Your task to perform on an android device: Search for hotels in Buenos aires Image 0: 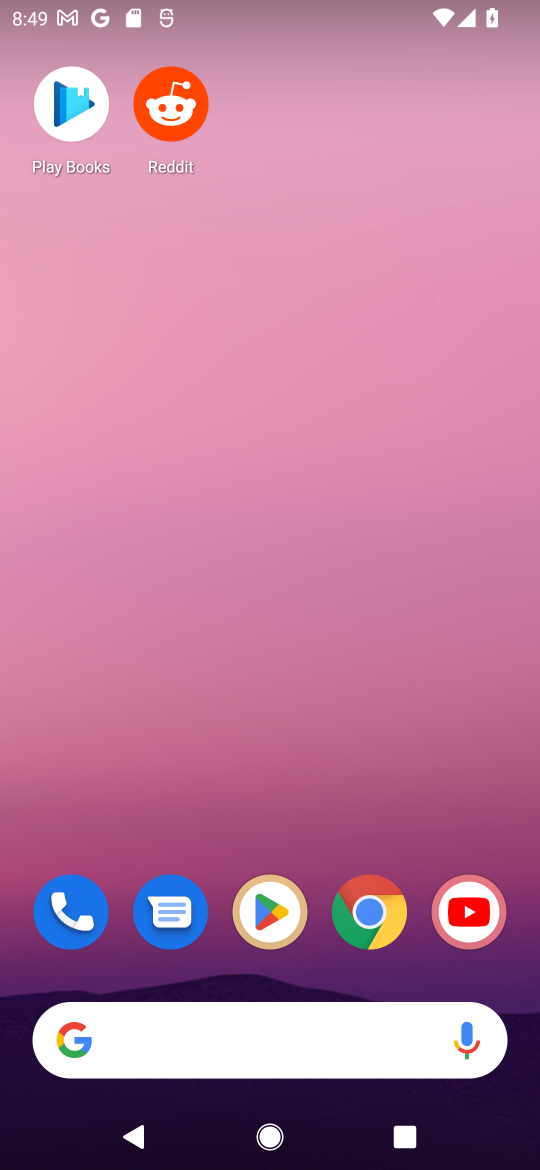
Step 0: click (371, 905)
Your task to perform on an android device: Search for hotels in Buenos aires Image 1: 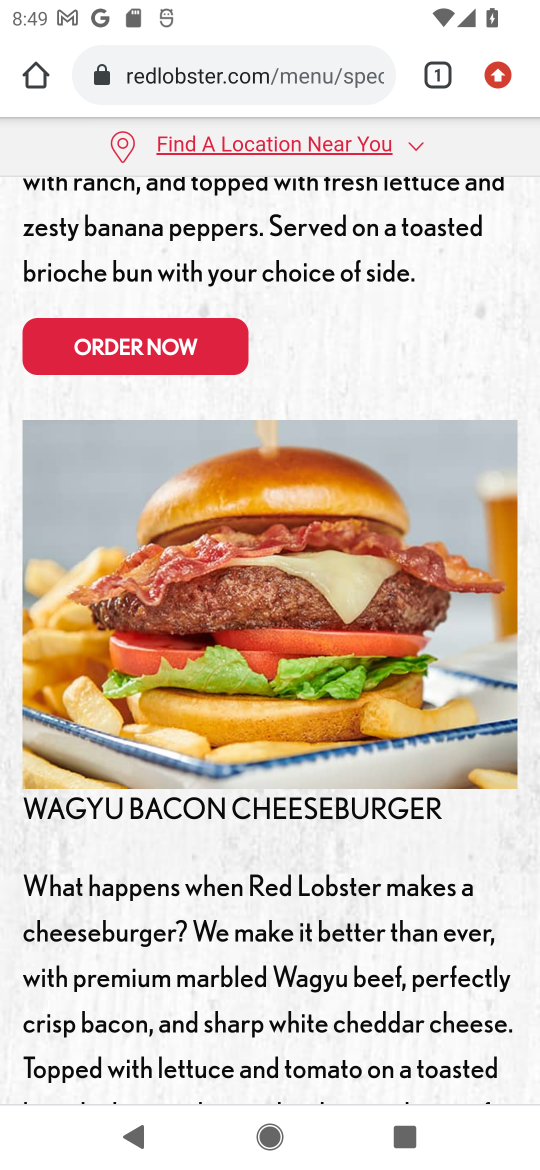
Step 1: click (252, 47)
Your task to perform on an android device: Search for hotels in Buenos aires Image 2: 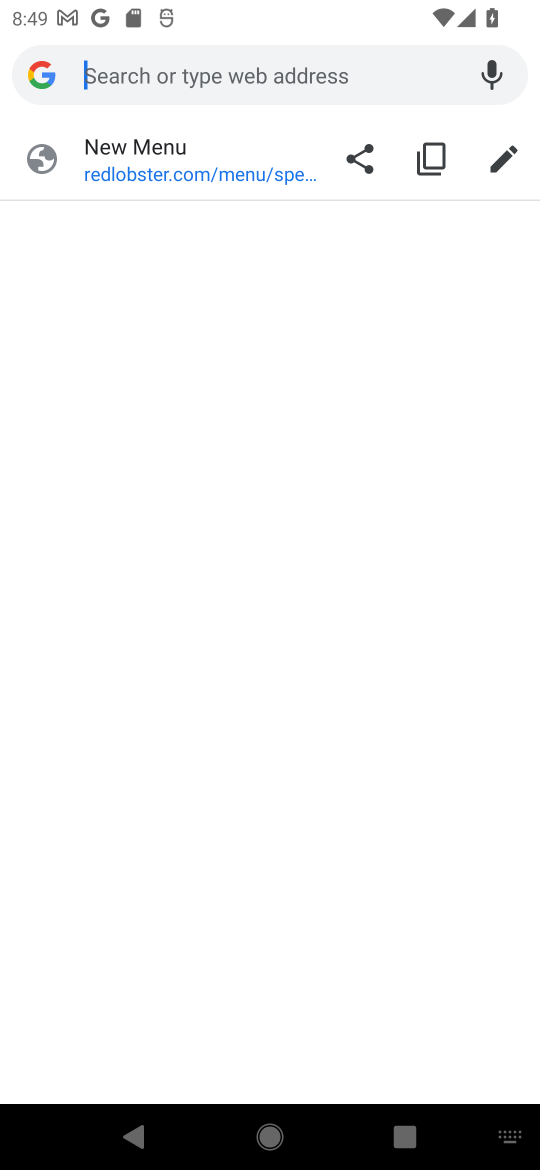
Step 2: type "hotels in buenos aires"
Your task to perform on an android device: Search for hotels in Buenos aires Image 3: 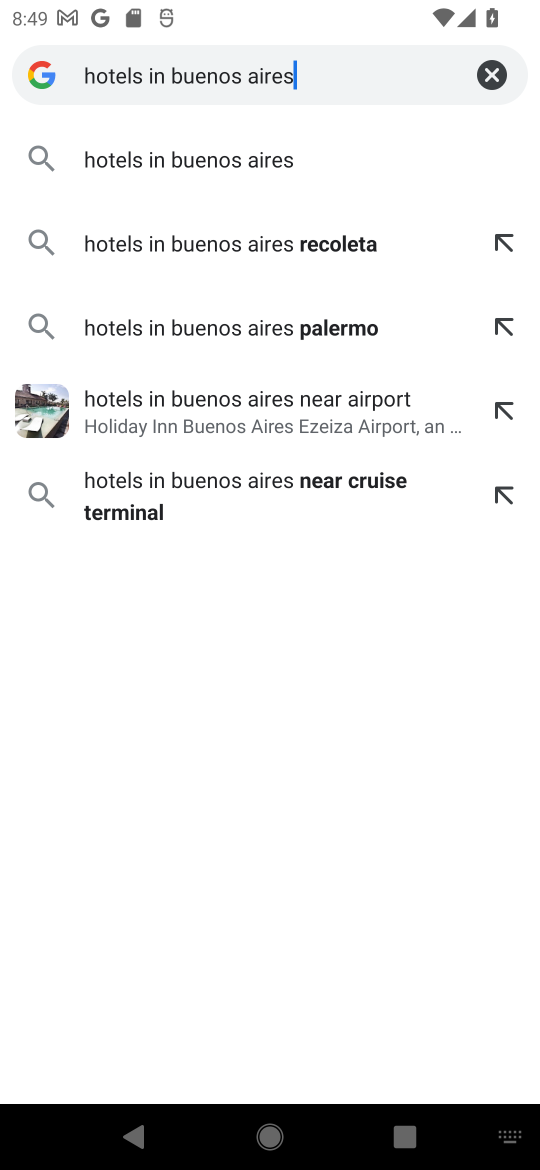
Step 3: click (180, 166)
Your task to perform on an android device: Search for hotels in Buenos aires Image 4: 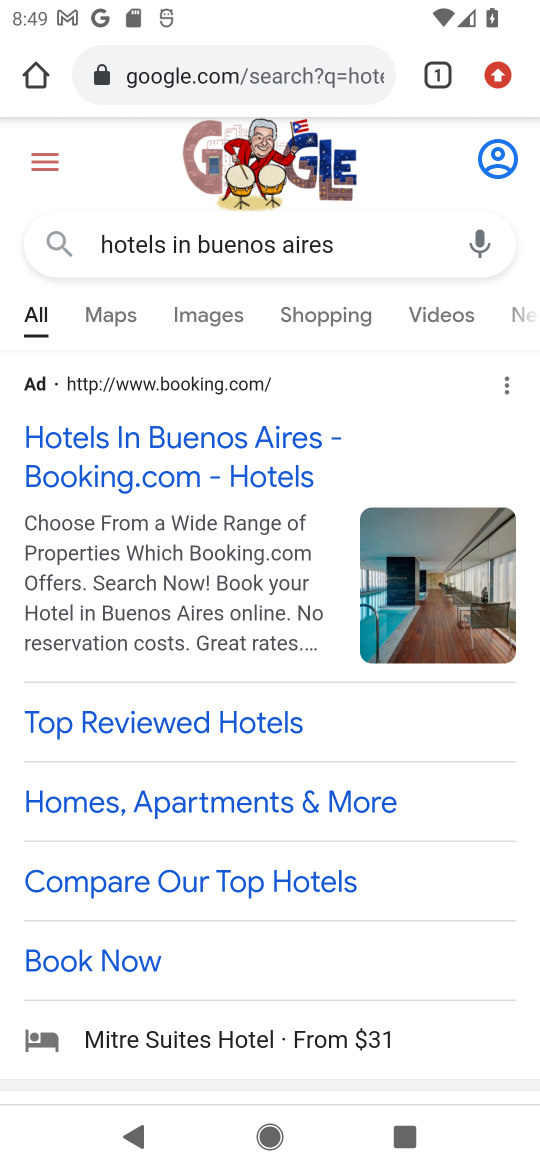
Step 4: click (153, 442)
Your task to perform on an android device: Search for hotels in Buenos aires Image 5: 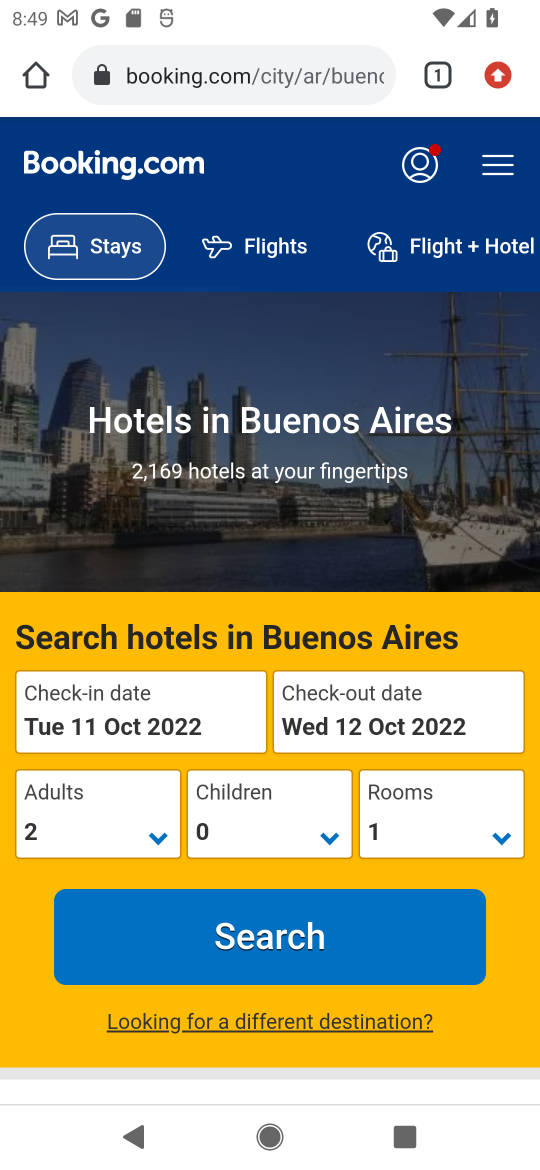
Step 5: click (251, 950)
Your task to perform on an android device: Search for hotels in Buenos aires Image 6: 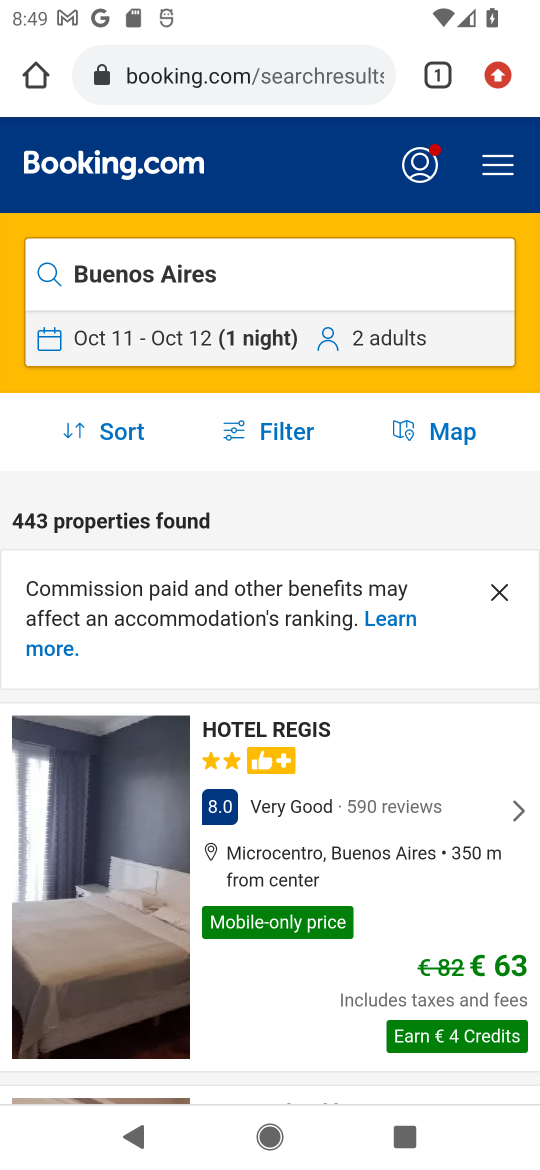
Step 6: task complete